Your task to perform on an android device: turn off notifications in google photos Image 0: 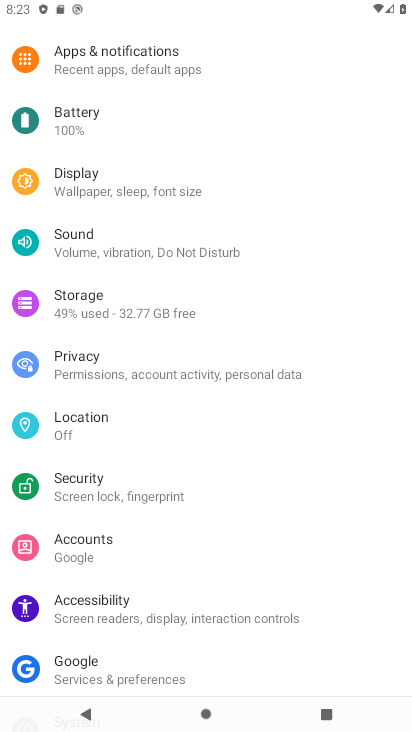
Step 0: press home button
Your task to perform on an android device: turn off notifications in google photos Image 1: 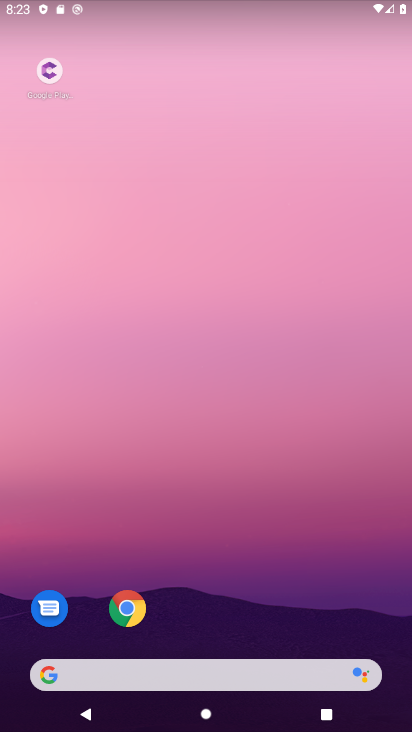
Step 1: drag from (177, 674) to (4, 598)
Your task to perform on an android device: turn off notifications in google photos Image 2: 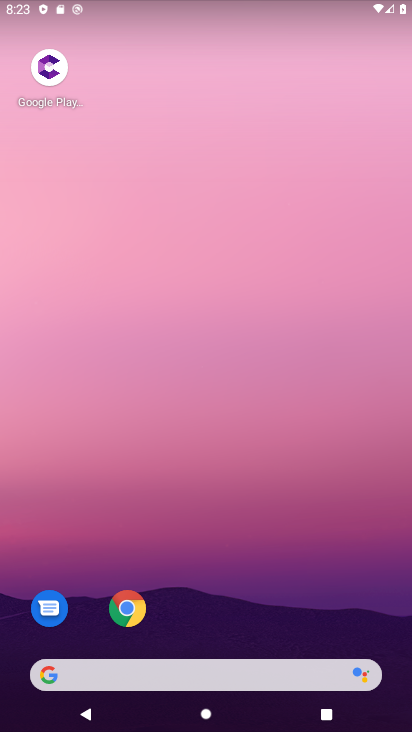
Step 2: drag from (189, 203) to (180, 77)
Your task to perform on an android device: turn off notifications in google photos Image 3: 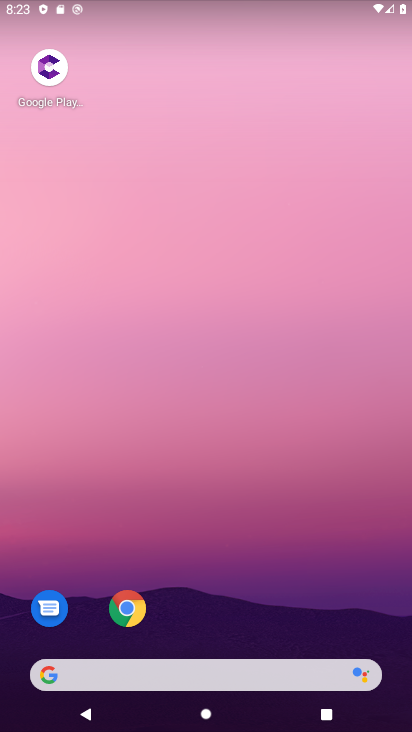
Step 3: drag from (200, 665) to (193, 15)
Your task to perform on an android device: turn off notifications in google photos Image 4: 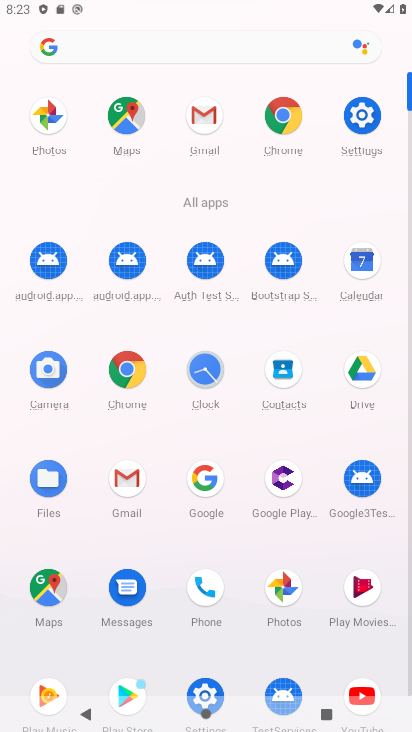
Step 4: click (287, 596)
Your task to perform on an android device: turn off notifications in google photos Image 5: 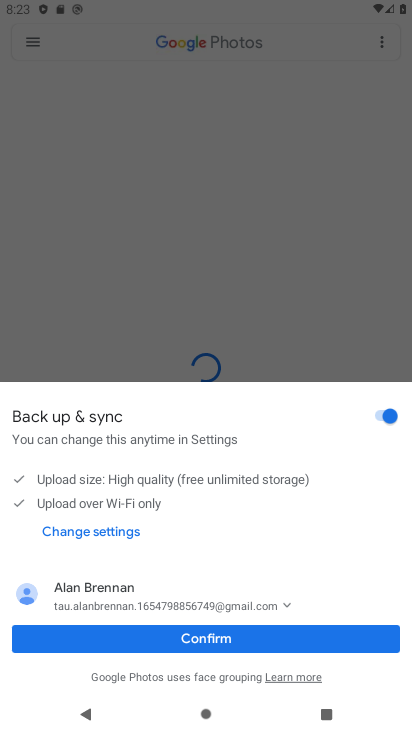
Step 5: click (233, 630)
Your task to perform on an android device: turn off notifications in google photos Image 6: 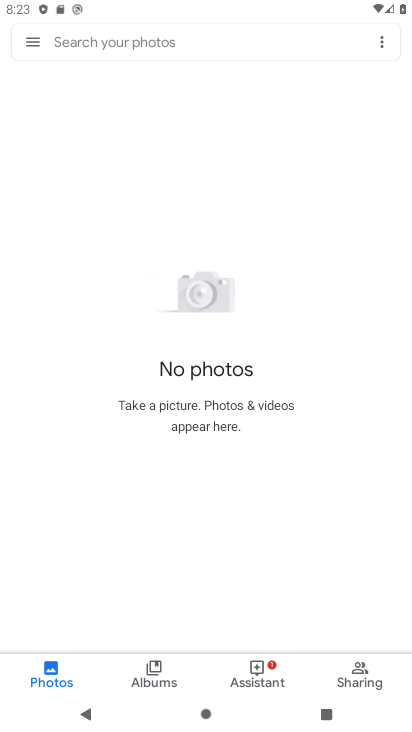
Step 6: click (30, 41)
Your task to perform on an android device: turn off notifications in google photos Image 7: 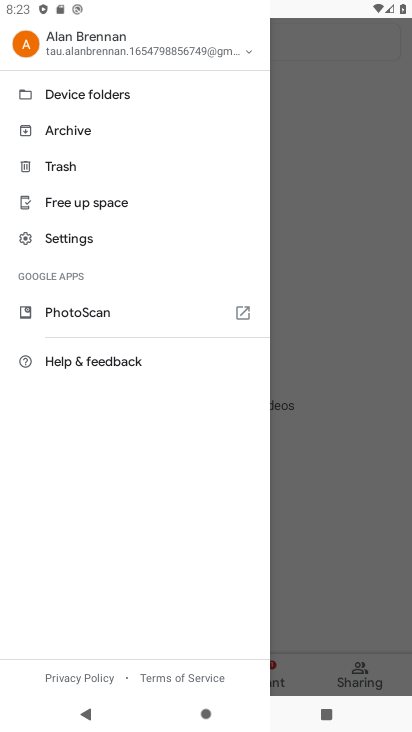
Step 7: click (72, 238)
Your task to perform on an android device: turn off notifications in google photos Image 8: 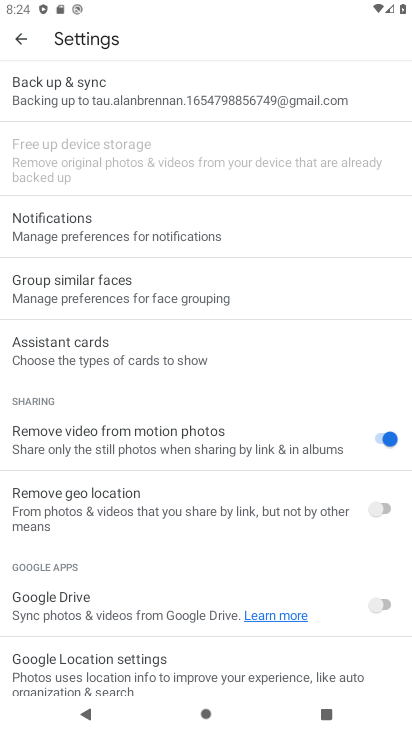
Step 8: click (78, 238)
Your task to perform on an android device: turn off notifications in google photos Image 9: 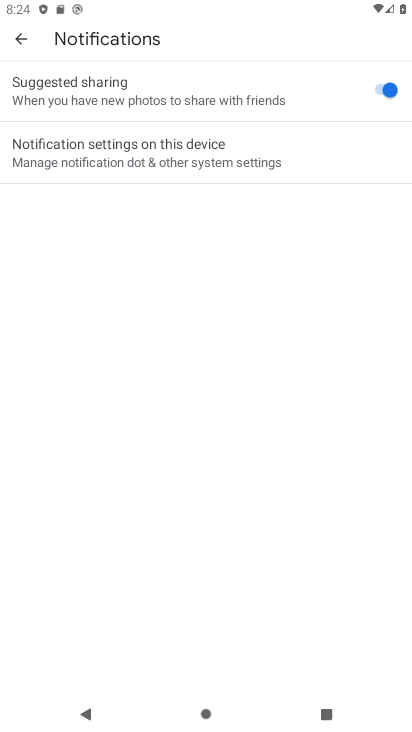
Step 9: click (303, 153)
Your task to perform on an android device: turn off notifications in google photos Image 10: 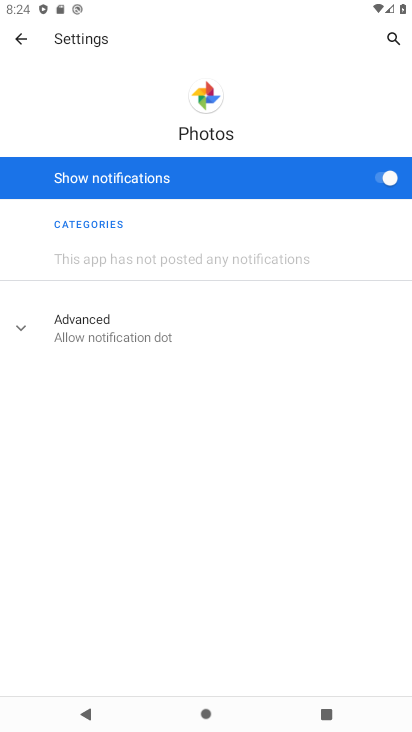
Step 10: click (395, 183)
Your task to perform on an android device: turn off notifications in google photos Image 11: 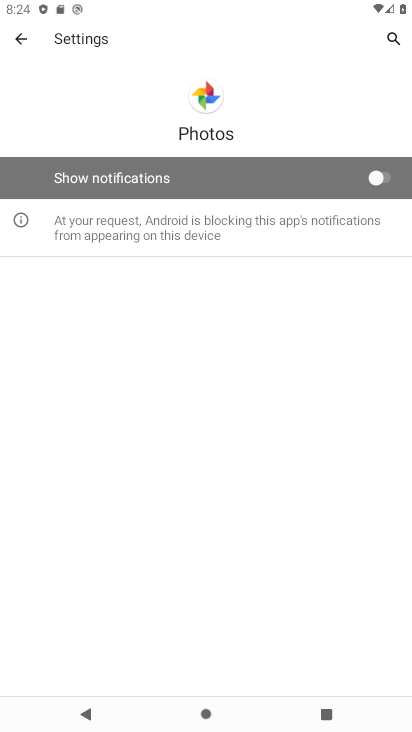
Step 11: task complete